Your task to perform on an android device: turn on the 12-hour format for clock Image 0: 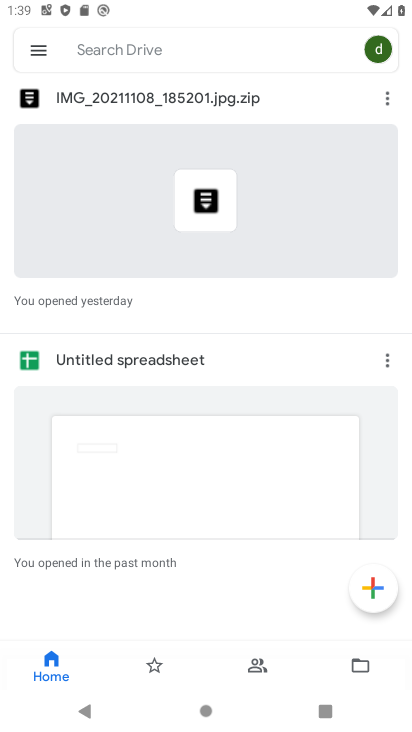
Step 0: drag from (206, 478) to (173, 81)
Your task to perform on an android device: turn on the 12-hour format for clock Image 1: 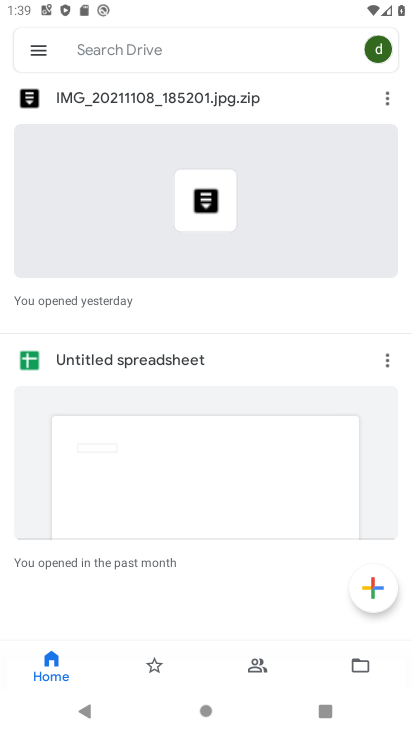
Step 1: press home button
Your task to perform on an android device: turn on the 12-hour format for clock Image 2: 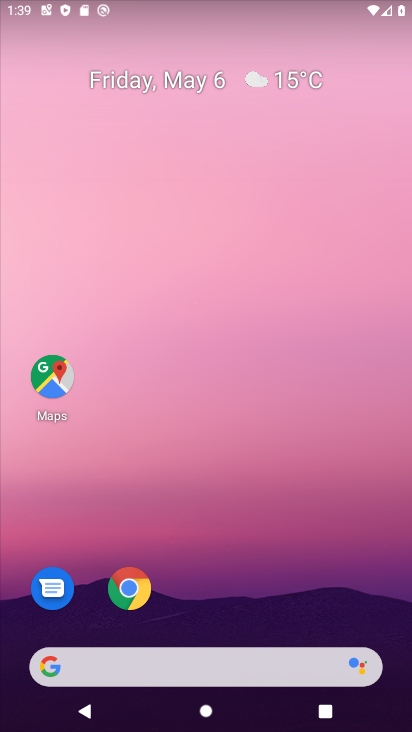
Step 2: drag from (215, 615) to (229, 193)
Your task to perform on an android device: turn on the 12-hour format for clock Image 3: 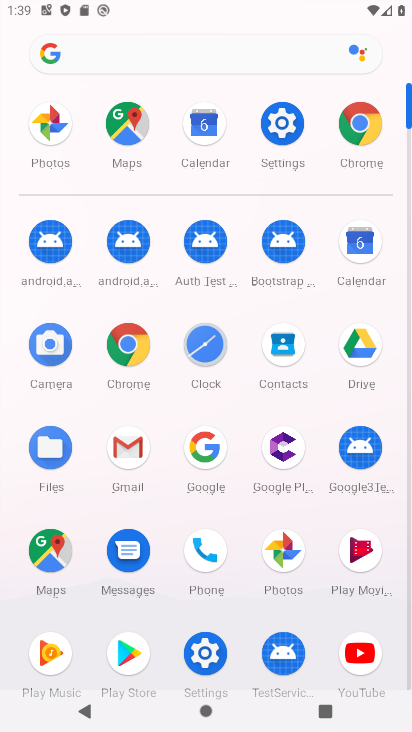
Step 3: click (208, 355)
Your task to perform on an android device: turn on the 12-hour format for clock Image 4: 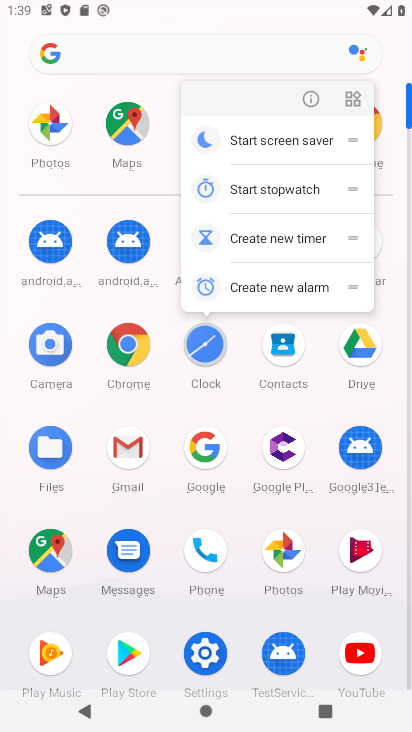
Step 4: click (302, 111)
Your task to perform on an android device: turn on the 12-hour format for clock Image 5: 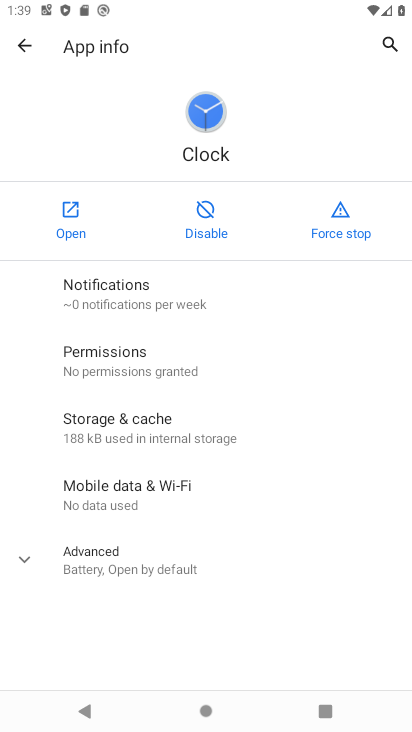
Step 5: click (69, 232)
Your task to perform on an android device: turn on the 12-hour format for clock Image 6: 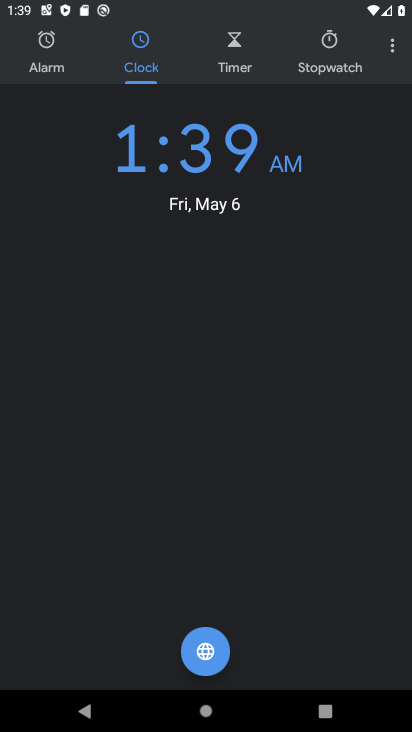
Step 6: click (239, 67)
Your task to perform on an android device: turn on the 12-hour format for clock Image 7: 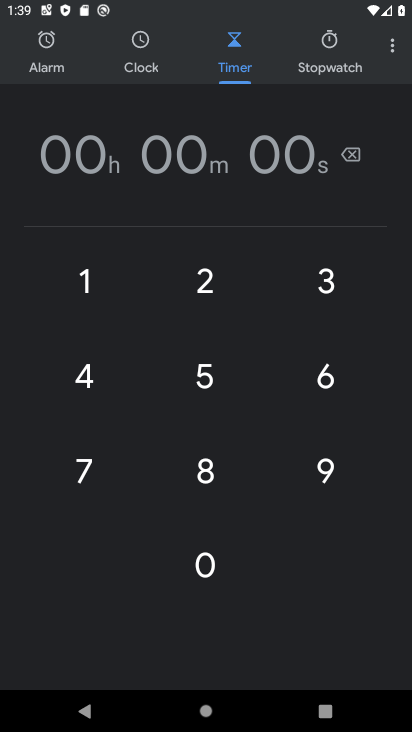
Step 7: click (396, 47)
Your task to perform on an android device: turn on the 12-hour format for clock Image 8: 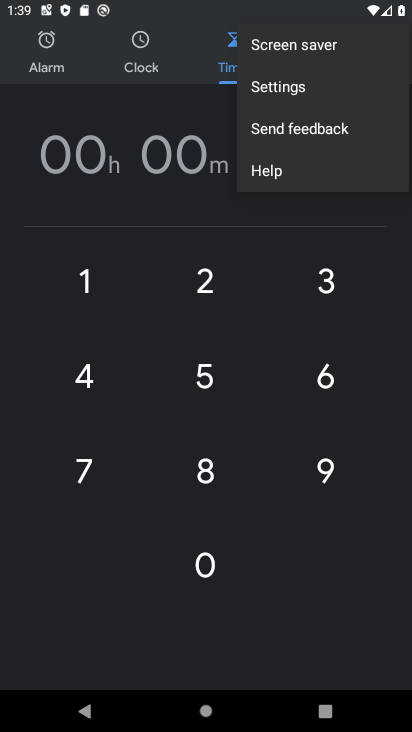
Step 8: click (300, 97)
Your task to perform on an android device: turn on the 12-hour format for clock Image 9: 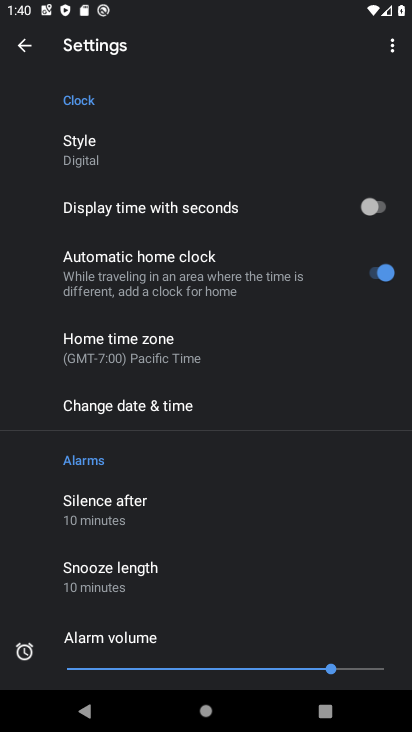
Step 9: click (121, 398)
Your task to perform on an android device: turn on the 12-hour format for clock Image 10: 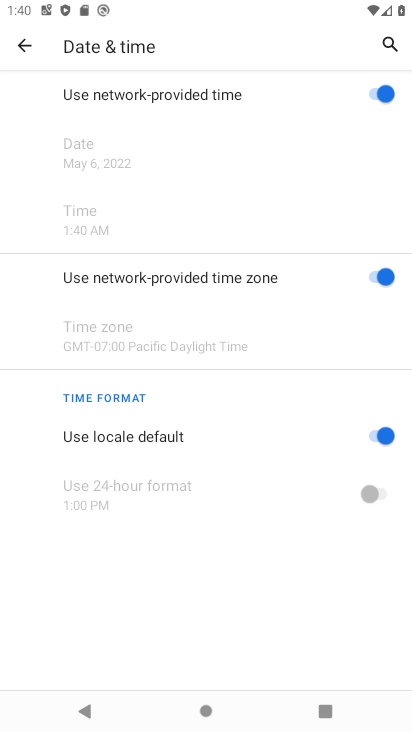
Step 10: task complete